Your task to perform on an android device: Open Google Chrome Image 0: 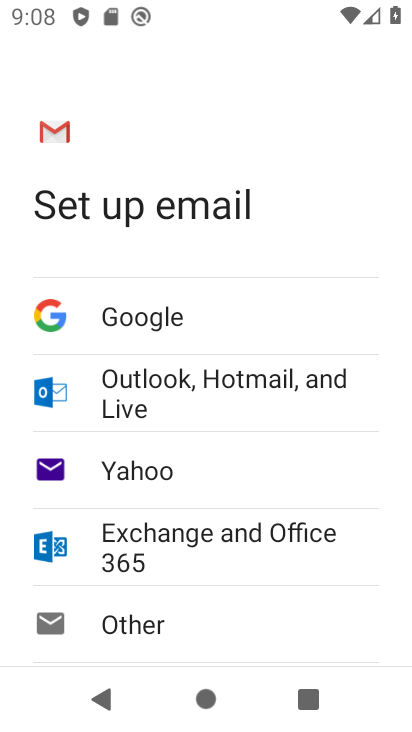
Step 0: press home button
Your task to perform on an android device: Open Google Chrome Image 1: 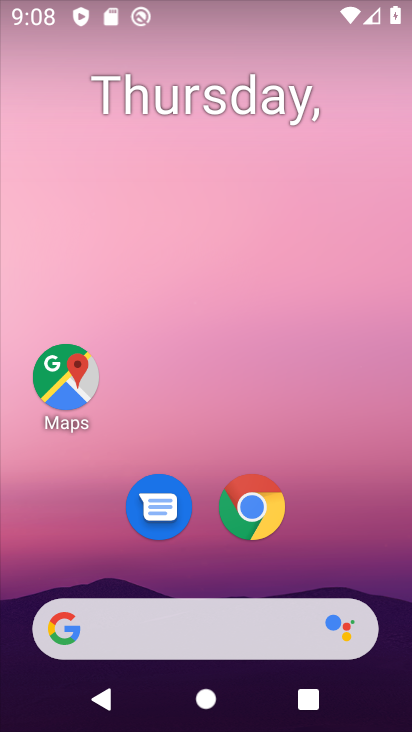
Step 1: click (256, 517)
Your task to perform on an android device: Open Google Chrome Image 2: 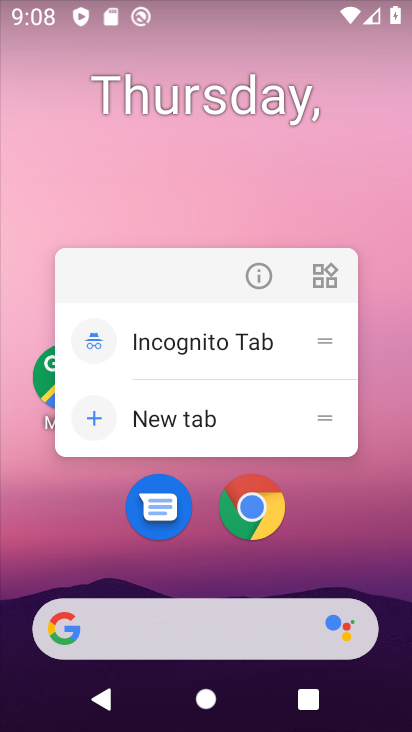
Step 2: click (256, 517)
Your task to perform on an android device: Open Google Chrome Image 3: 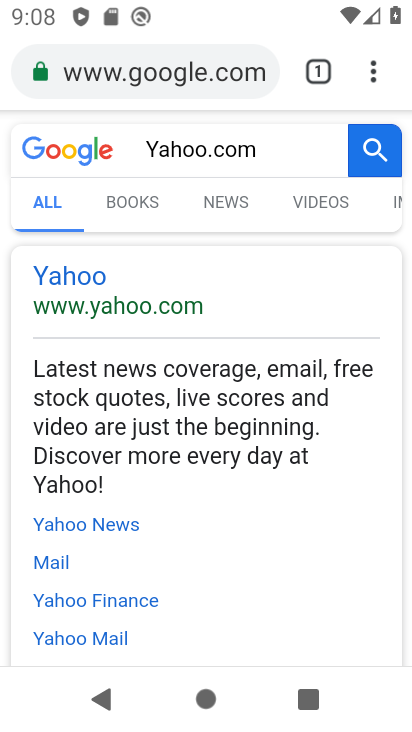
Step 3: task complete